Your task to perform on an android device: Is it going to rain today? Image 0: 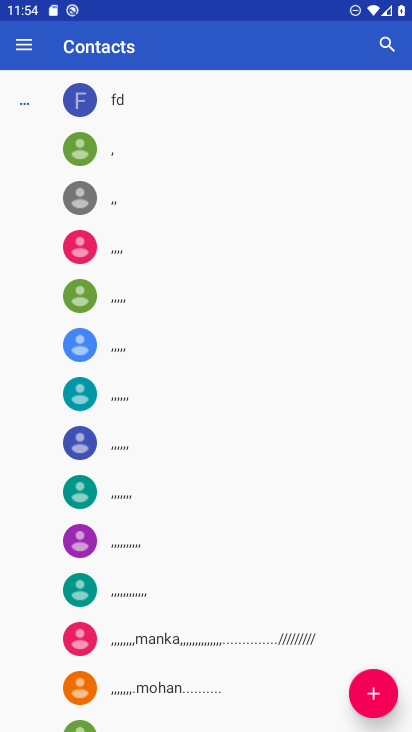
Step 0: press home button
Your task to perform on an android device: Is it going to rain today? Image 1: 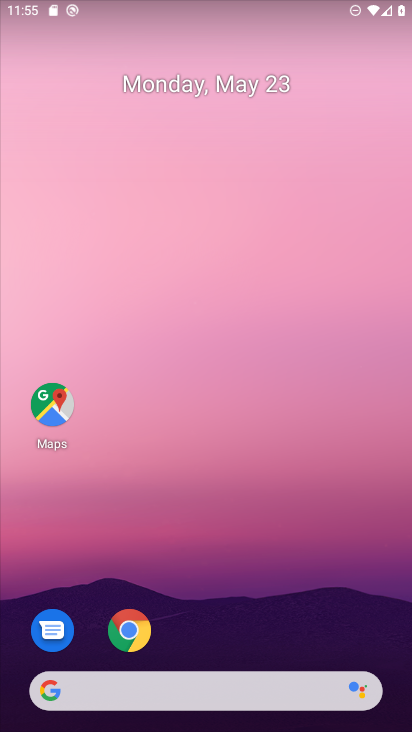
Step 1: click (132, 634)
Your task to perform on an android device: Is it going to rain today? Image 2: 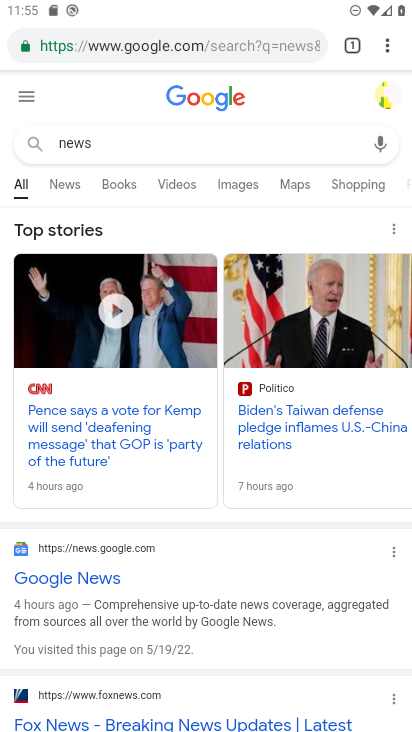
Step 2: click (155, 40)
Your task to perform on an android device: Is it going to rain today? Image 3: 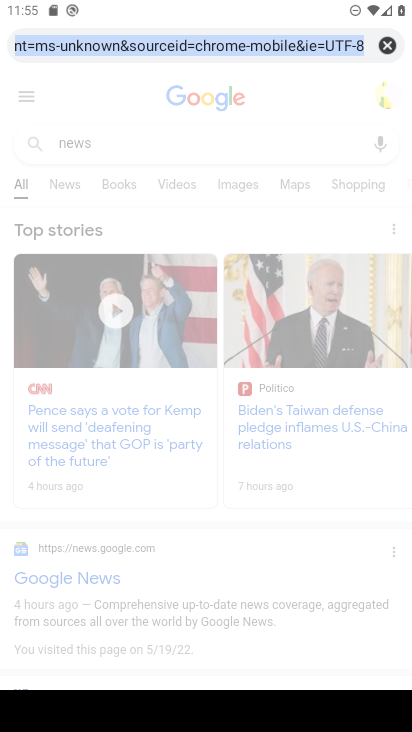
Step 3: type "is it going to rain today"
Your task to perform on an android device: Is it going to rain today? Image 4: 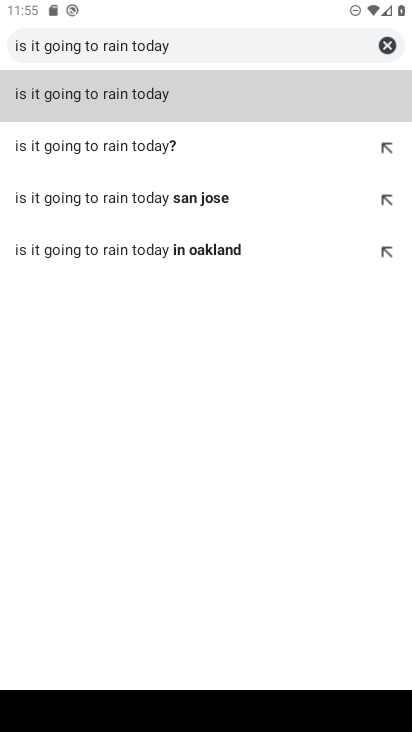
Step 4: click (255, 98)
Your task to perform on an android device: Is it going to rain today? Image 5: 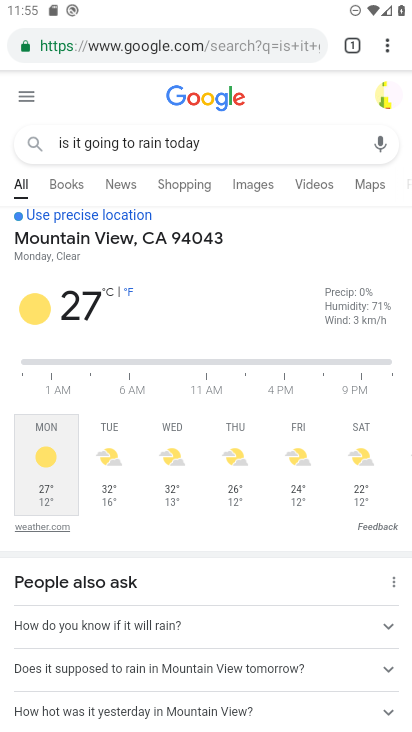
Step 5: task complete